Your task to perform on an android device: Add "logitech g pro" to the cart on costco Image 0: 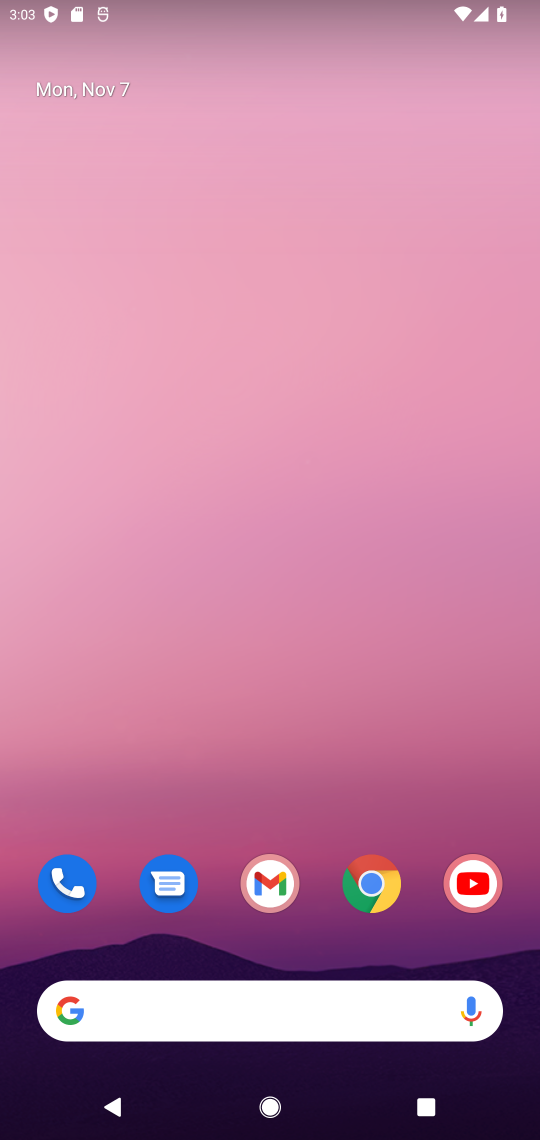
Step 0: click (359, 888)
Your task to perform on an android device: Add "logitech g pro" to the cart on costco Image 1: 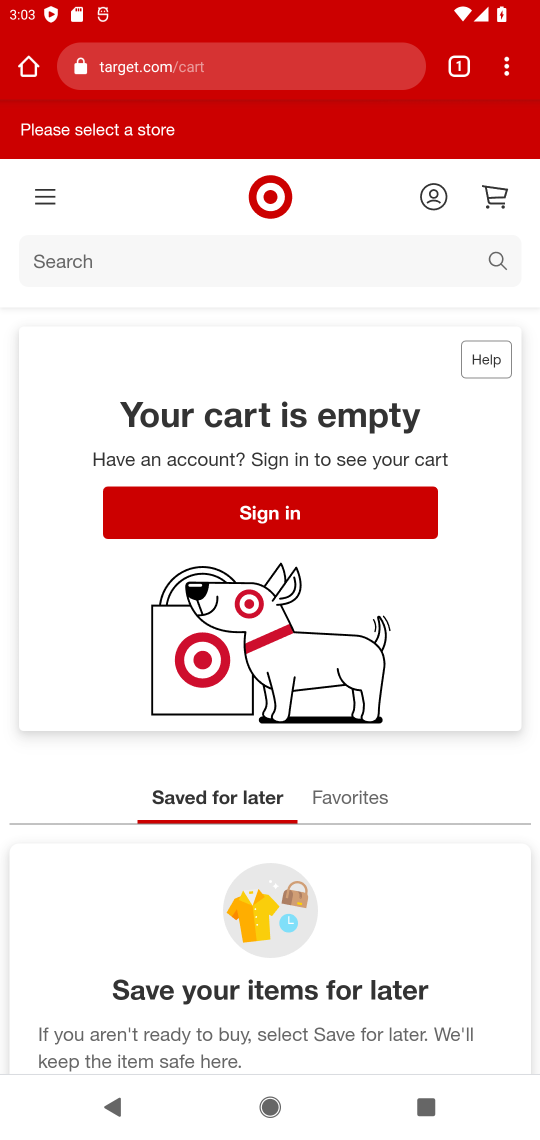
Step 1: click (274, 65)
Your task to perform on an android device: Add "logitech g pro" to the cart on costco Image 2: 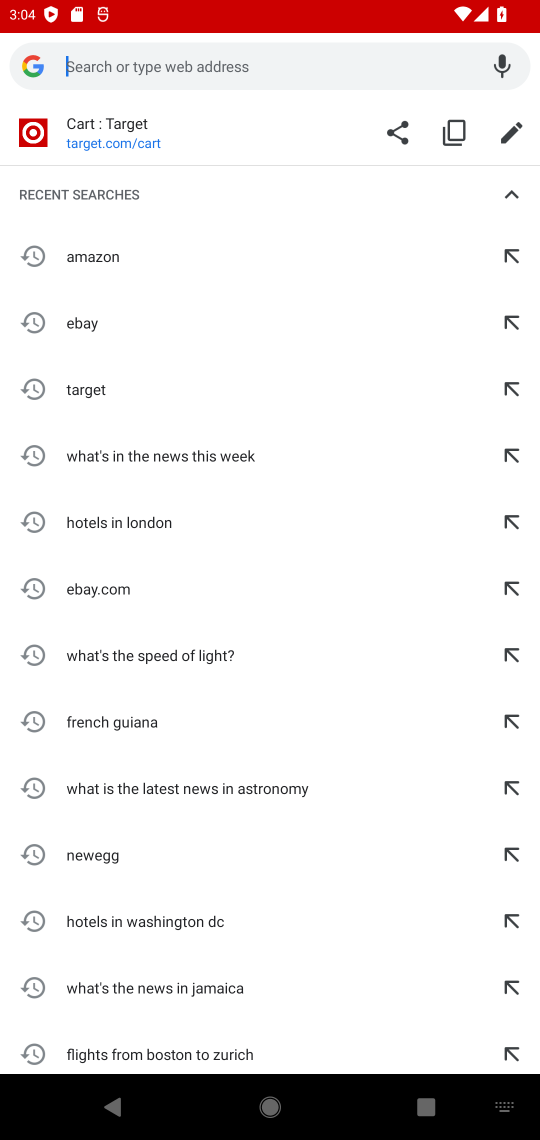
Step 2: type "costco"
Your task to perform on an android device: Add "logitech g pro" to the cart on costco Image 3: 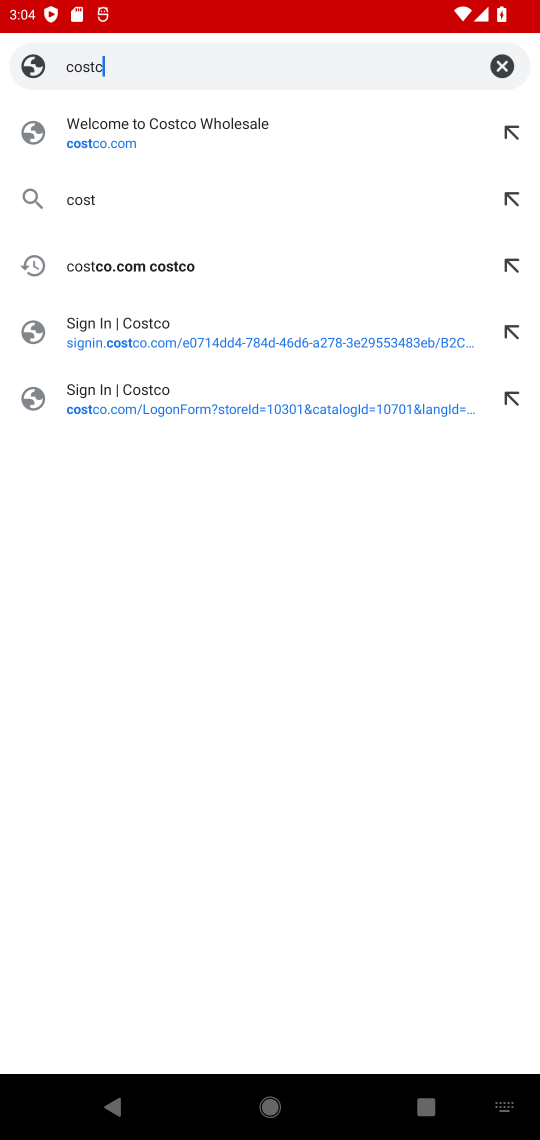
Step 3: press enter
Your task to perform on an android device: Add "logitech g pro" to the cart on costco Image 4: 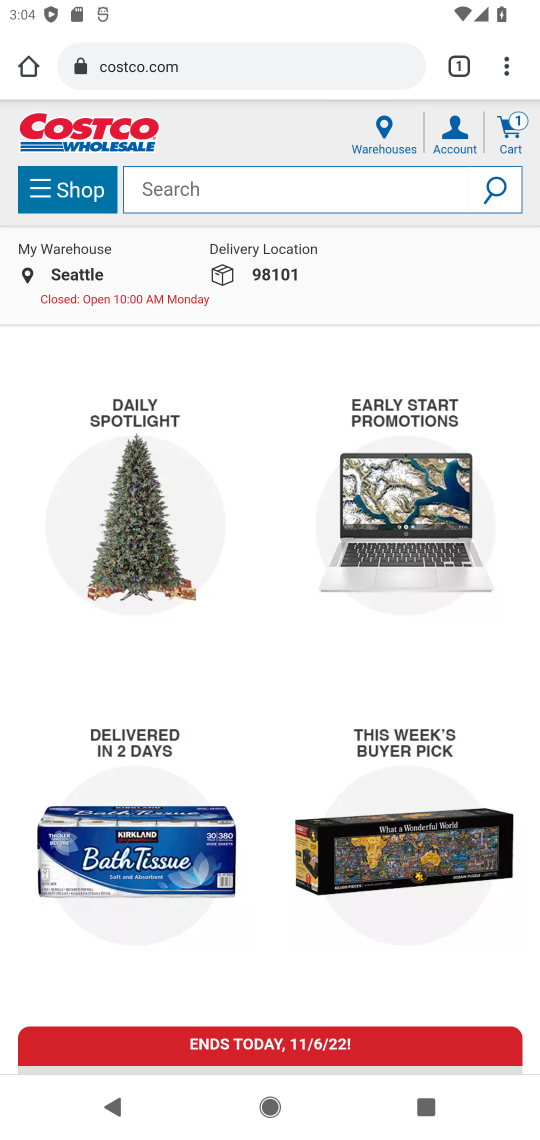
Step 4: click (343, 179)
Your task to perform on an android device: Add "logitech g pro" to the cart on costco Image 5: 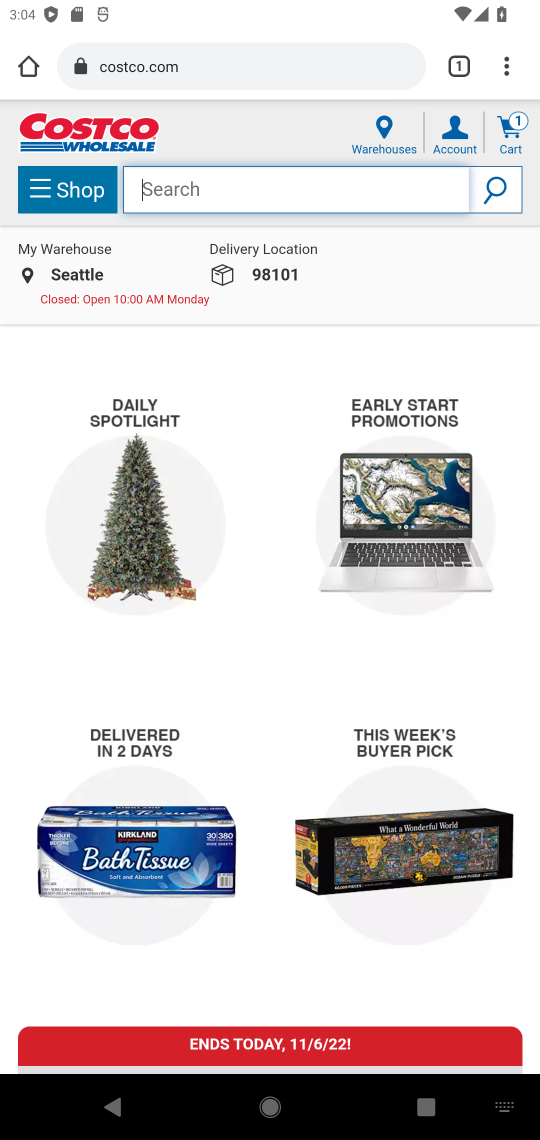
Step 5: press enter
Your task to perform on an android device: Add "logitech g pro" to the cart on costco Image 6: 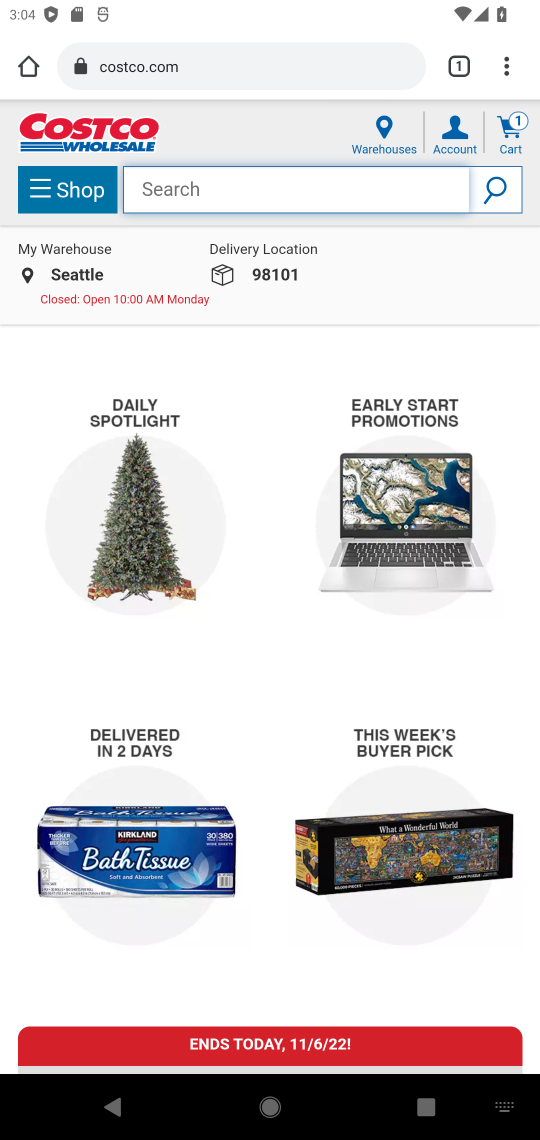
Step 6: type "logitech g pro"
Your task to perform on an android device: Add "logitech g pro" to the cart on costco Image 7: 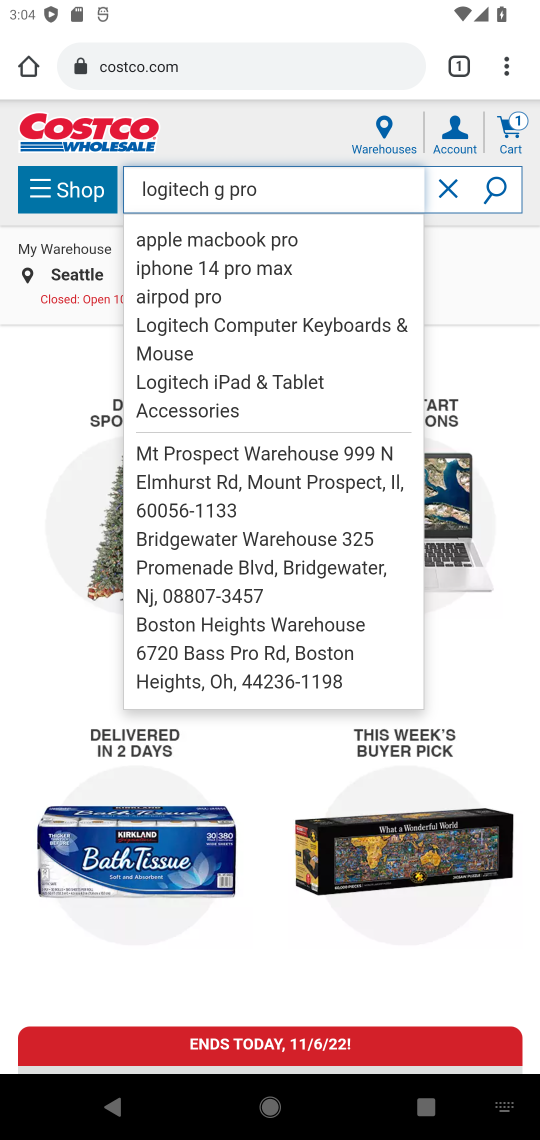
Step 7: press enter
Your task to perform on an android device: Add "logitech g pro" to the cart on costco Image 8: 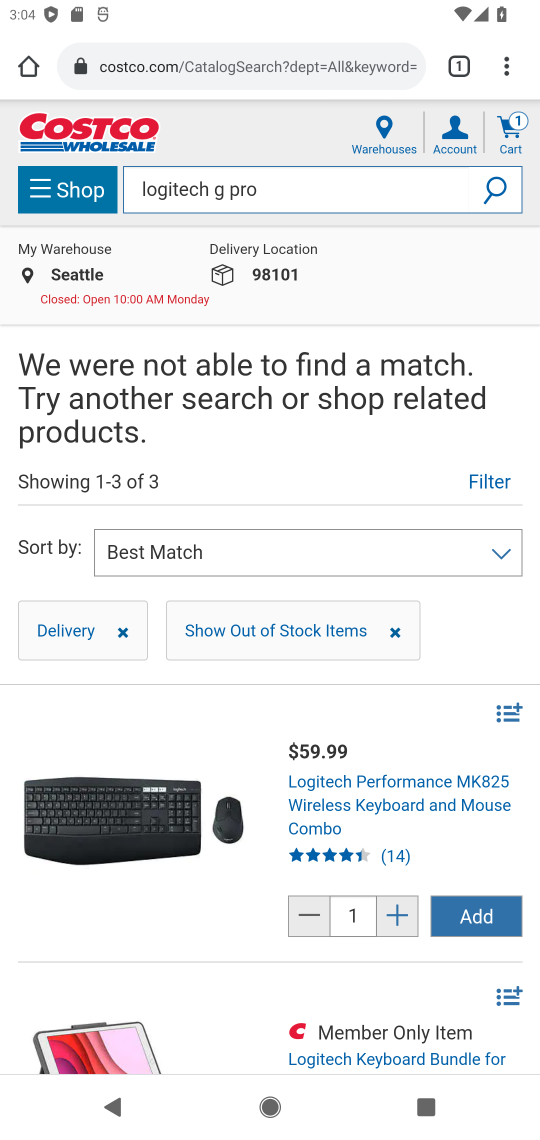
Step 8: task complete